Your task to perform on an android device: Play the last video I watched on Youtube Image 0: 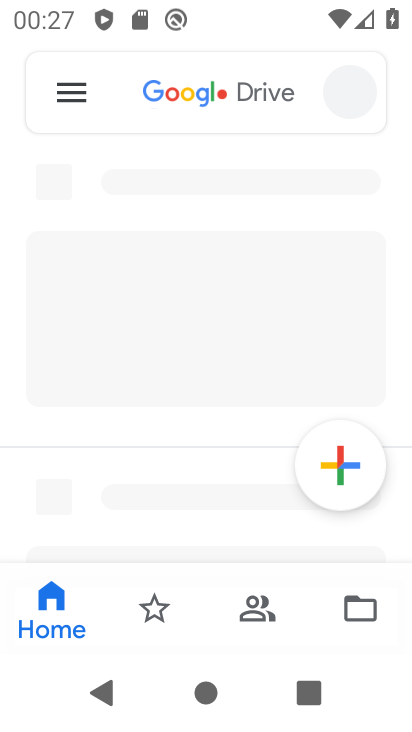
Step 0: press home button
Your task to perform on an android device: Play the last video I watched on Youtube Image 1: 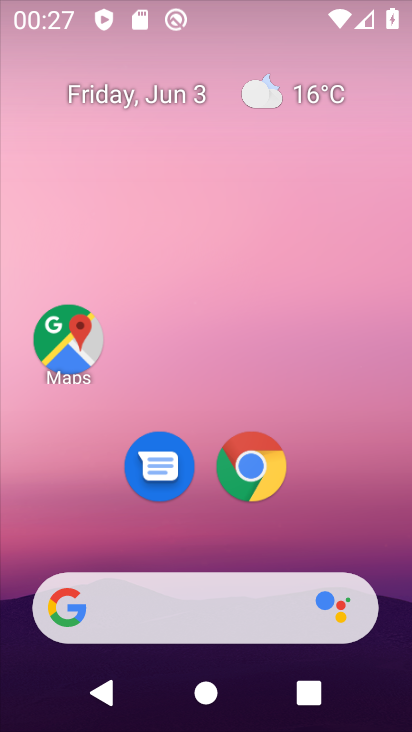
Step 1: drag from (153, 322) to (190, 148)
Your task to perform on an android device: Play the last video I watched on Youtube Image 2: 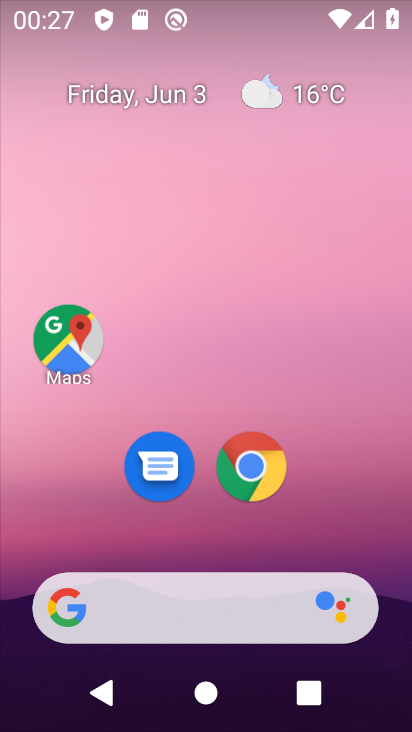
Step 2: drag from (115, 585) to (193, 143)
Your task to perform on an android device: Play the last video I watched on Youtube Image 3: 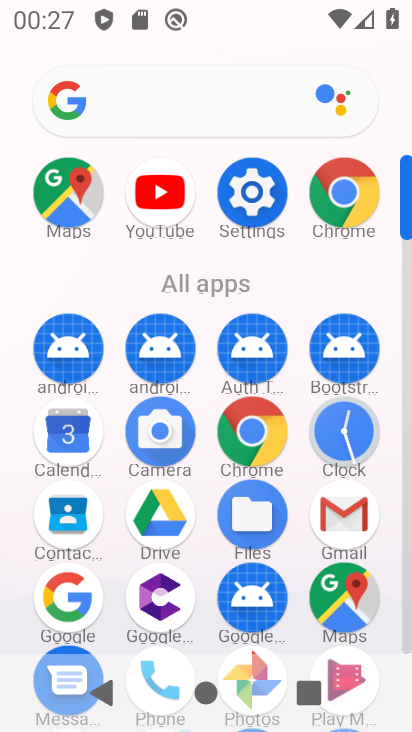
Step 3: drag from (230, 510) to (294, 256)
Your task to perform on an android device: Play the last video I watched on Youtube Image 4: 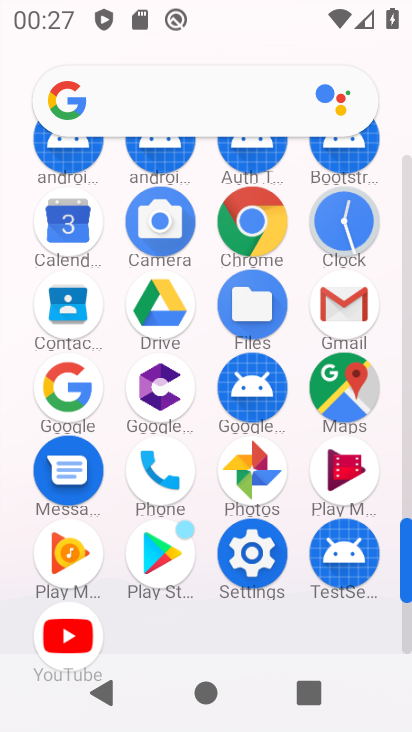
Step 4: click (50, 635)
Your task to perform on an android device: Play the last video I watched on Youtube Image 5: 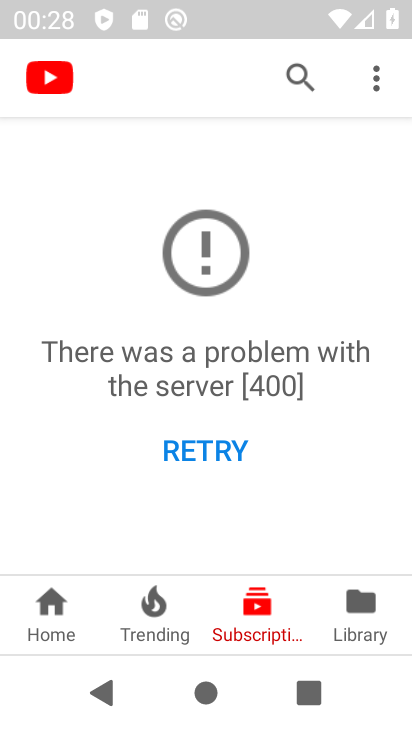
Step 5: click (369, 620)
Your task to perform on an android device: Play the last video I watched on Youtube Image 6: 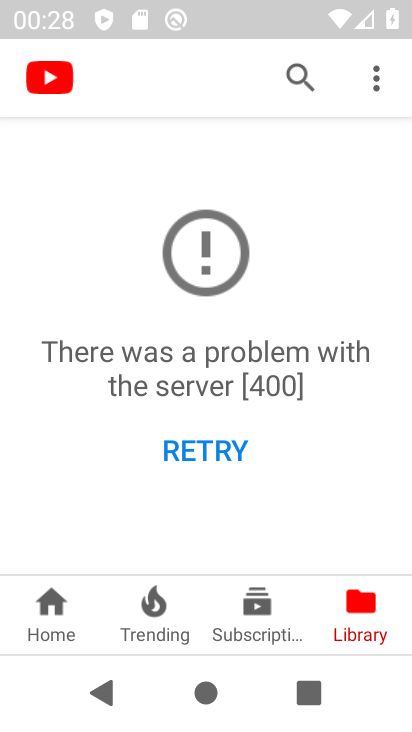
Step 6: task complete